Your task to perform on an android device: open a bookmark in the chrome app Image 0: 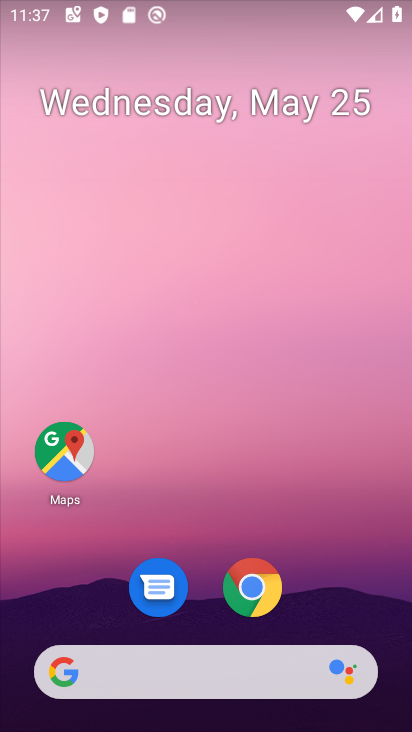
Step 0: drag from (291, 631) to (289, 109)
Your task to perform on an android device: open a bookmark in the chrome app Image 1: 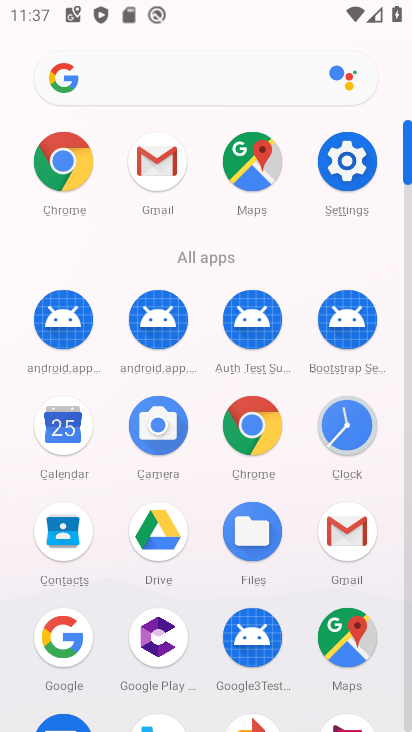
Step 1: click (74, 152)
Your task to perform on an android device: open a bookmark in the chrome app Image 2: 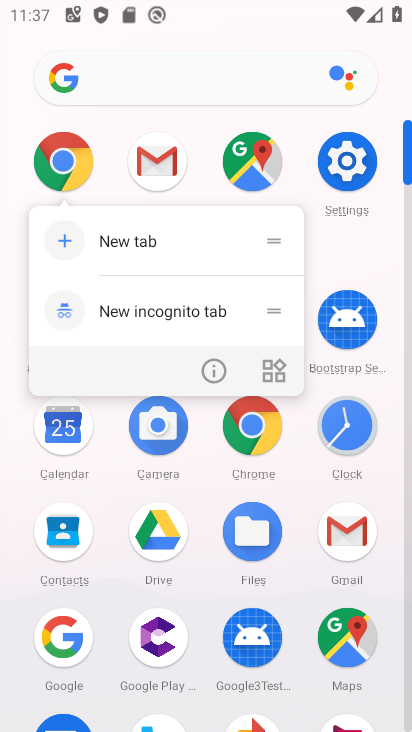
Step 2: click (54, 170)
Your task to perform on an android device: open a bookmark in the chrome app Image 3: 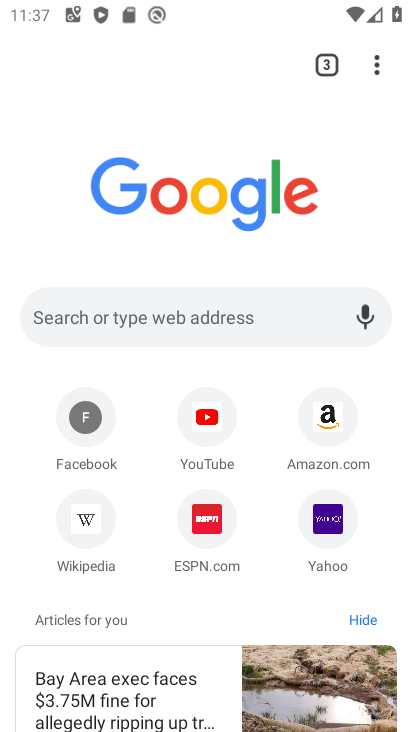
Step 3: click (381, 84)
Your task to perform on an android device: open a bookmark in the chrome app Image 4: 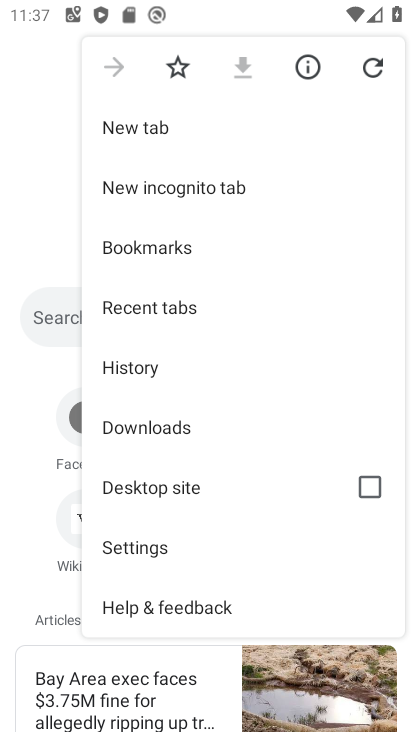
Step 4: click (175, 250)
Your task to perform on an android device: open a bookmark in the chrome app Image 5: 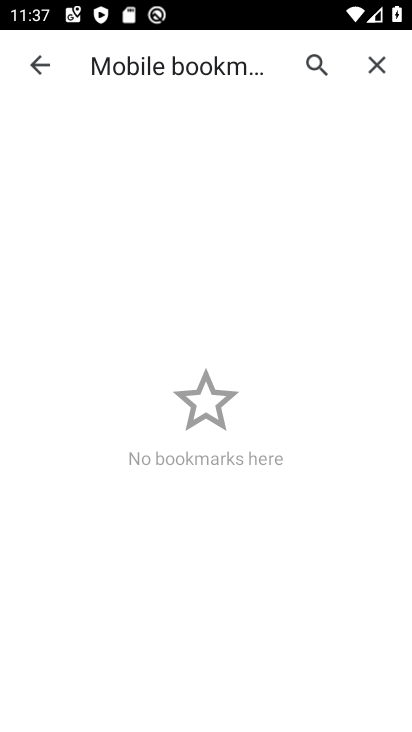
Step 5: task complete